Your task to perform on an android device: Open network settings Image 0: 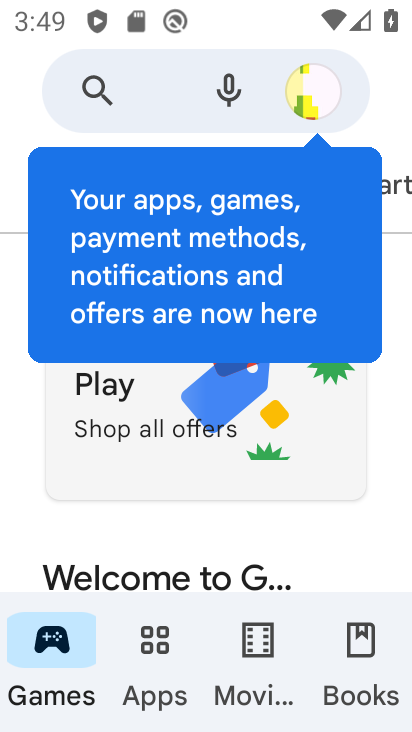
Step 0: press home button
Your task to perform on an android device: Open network settings Image 1: 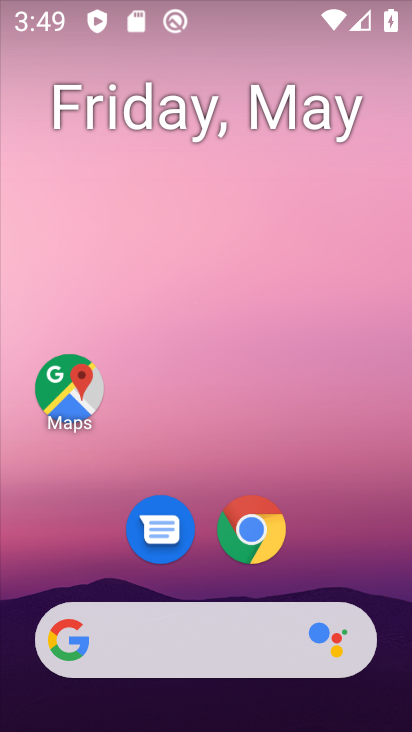
Step 1: drag from (264, 645) to (364, 317)
Your task to perform on an android device: Open network settings Image 2: 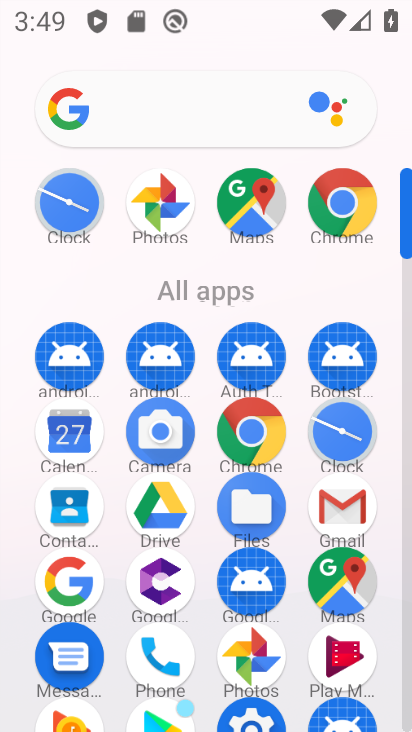
Step 2: drag from (173, 495) to (257, 221)
Your task to perform on an android device: Open network settings Image 3: 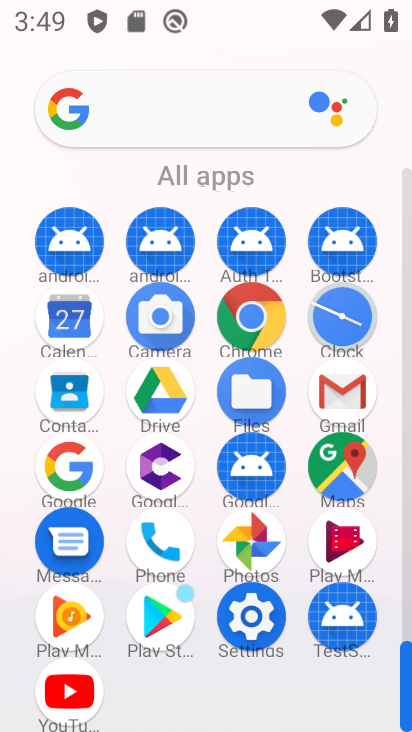
Step 3: click (252, 614)
Your task to perform on an android device: Open network settings Image 4: 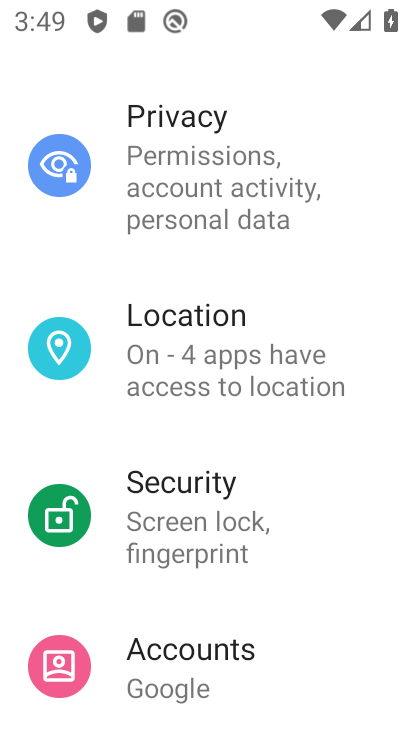
Step 4: drag from (299, 338) to (262, 586)
Your task to perform on an android device: Open network settings Image 5: 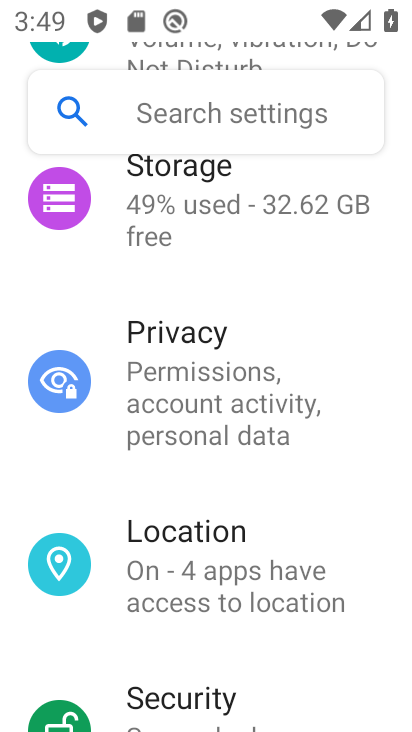
Step 5: drag from (263, 334) to (228, 617)
Your task to perform on an android device: Open network settings Image 6: 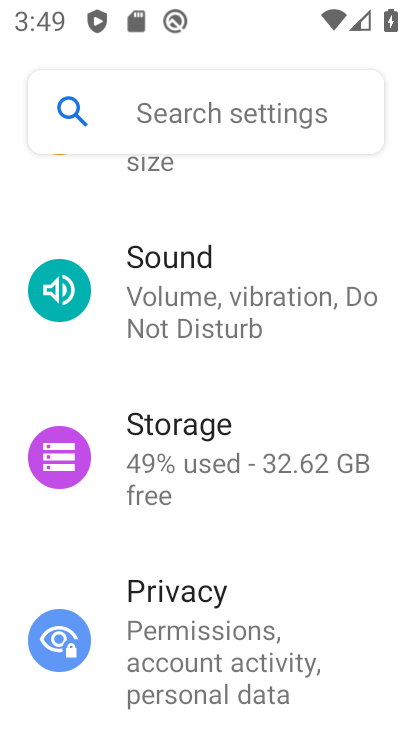
Step 6: drag from (259, 273) to (238, 560)
Your task to perform on an android device: Open network settings Image 7: 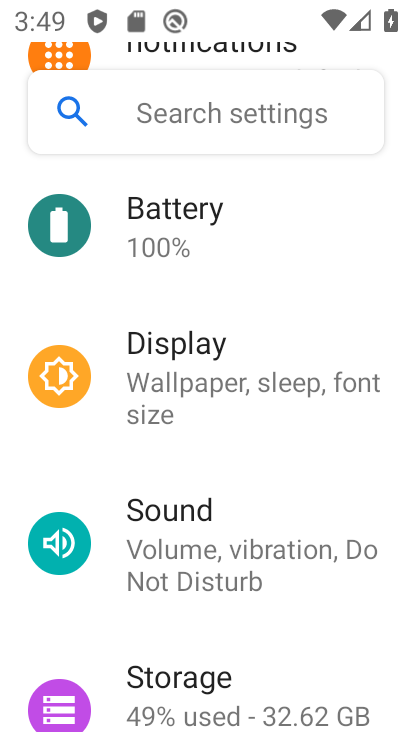
Step 7: drag from (262, 330) to (219, 611)
Your task to perform on an android device: Open network settings Image 8: 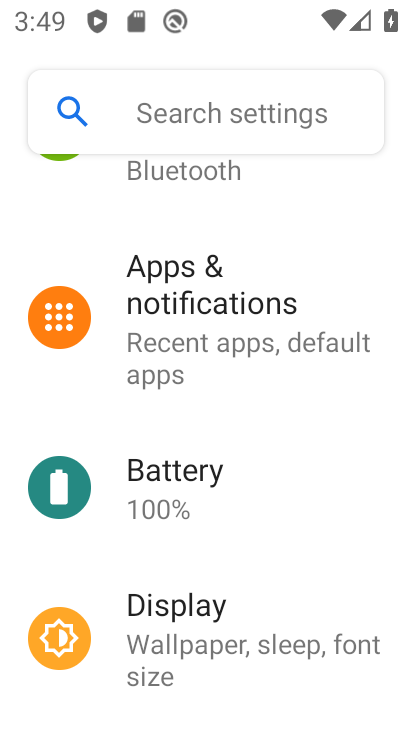
Step 8: drag from (287, 212) to (261, 447)
Your task to perform on an android device: Open network settings Image 9: 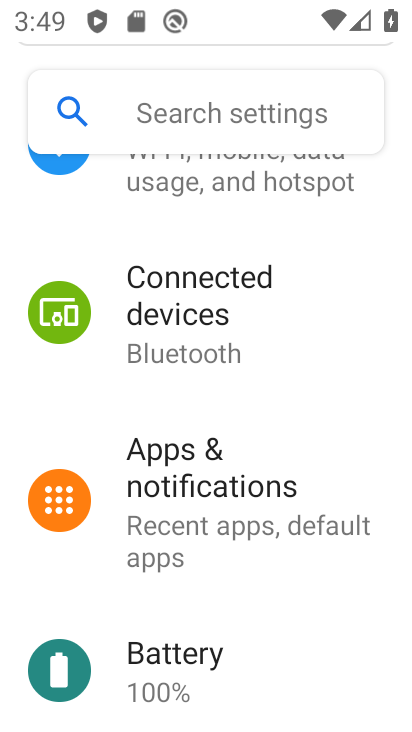
Step 9: drag from (263, 325) to (209, 655)
Your task to perform on an android device: Open network settings Image 10: 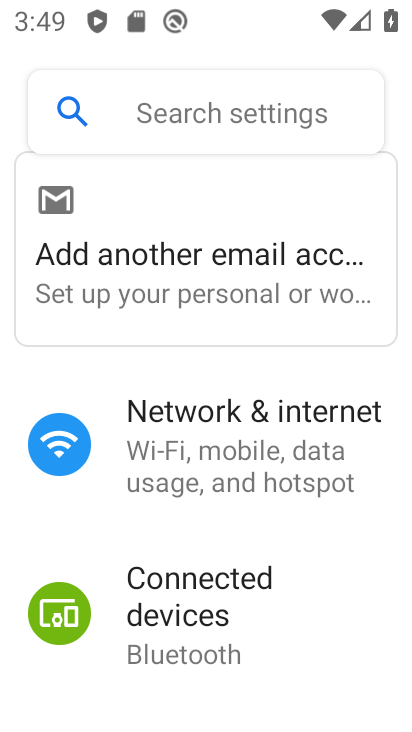
Step 10: click (253, 442)
Your task to perform on an android device: Open network settings Image 11: 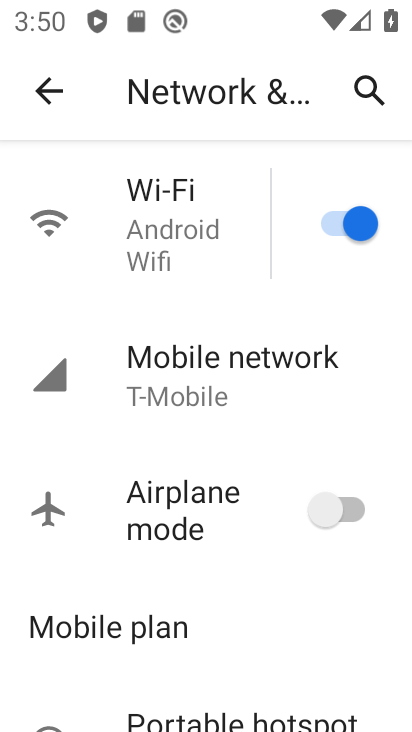
Step 11: drag from (198, 648) to (217, 313)
Your task to perform on an android device: Open network settings Image 12: 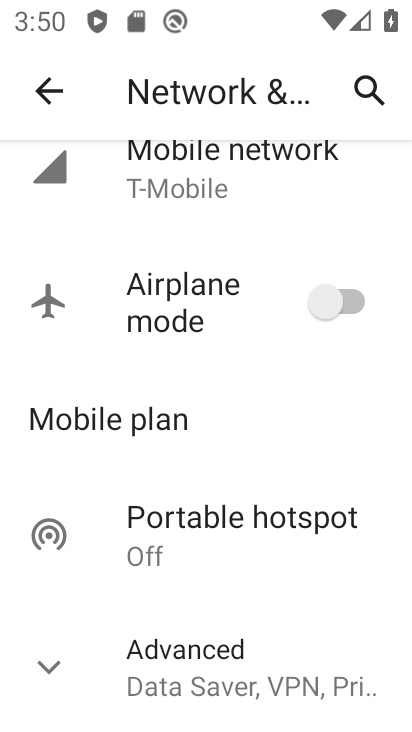
Step 12: click (275, 183)
Your task to perform on an android device: Open network settings Image 13: 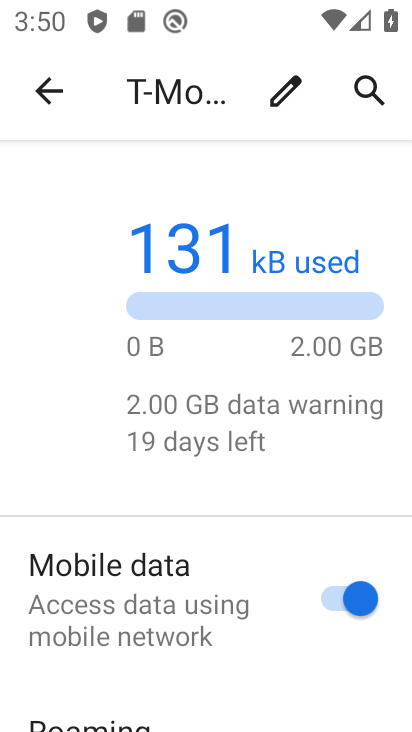
Step 13: task complete